Your task to perform on an android device: turn on priority inbox in the gmail app Image 0: 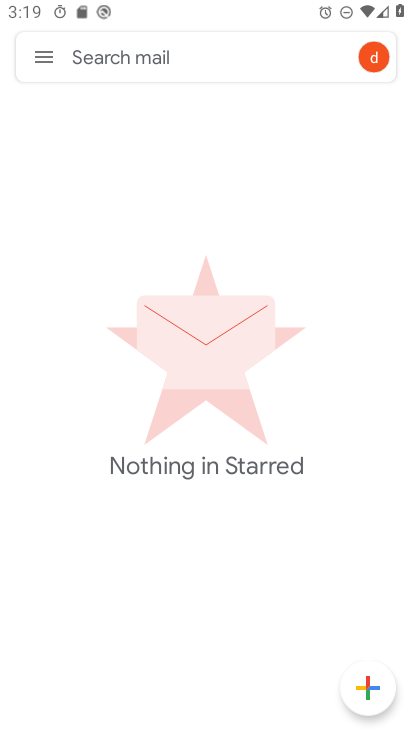
Step 0: press home button
Your task to perform on an android device: turn on priority inbox in the gmail app Image 1: 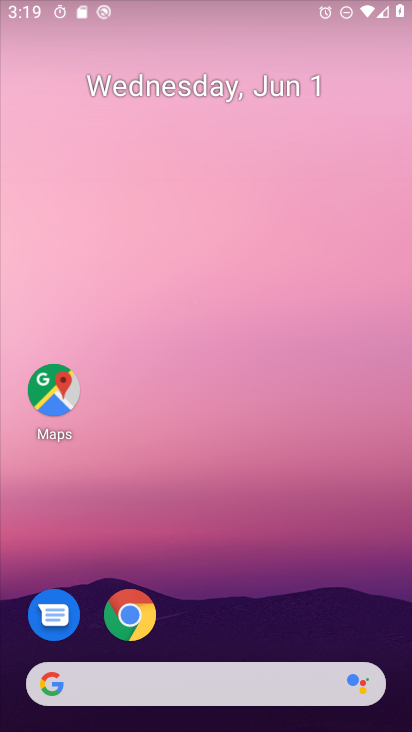
Step 1: drag from (209, 658) to (272, 78)
Your task to perform on an android device: turn on priority inbox in the gmail app Image 2: 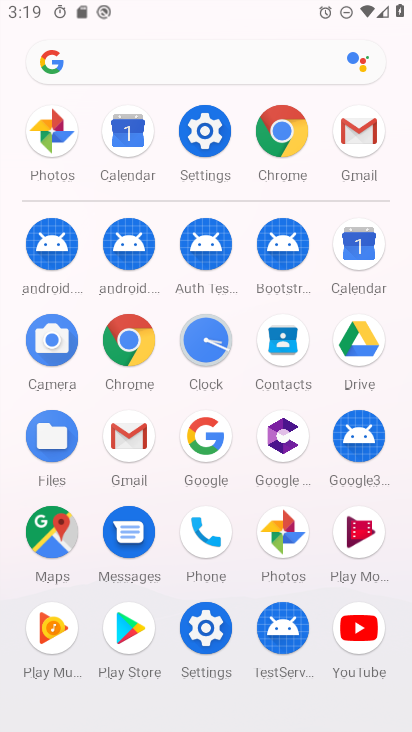
Step 2: click (142, 444)
Your task to perform on an android device: turn on priority inbox in the gmail app Image 3: 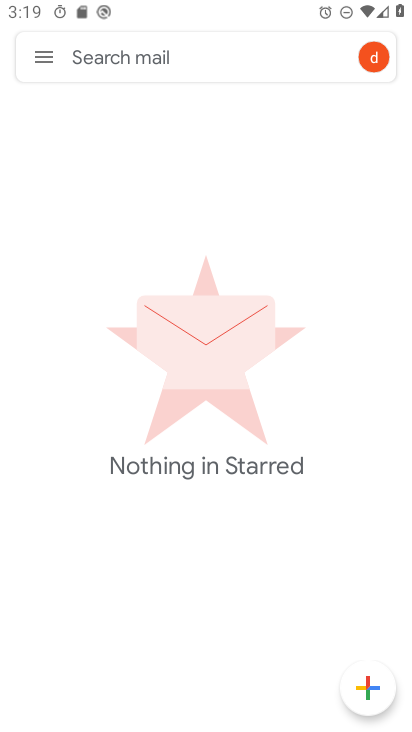
Step 3: click (33, 50)
Your task to perform on an android device: turn on priority inbox in the gmail app Image 4: 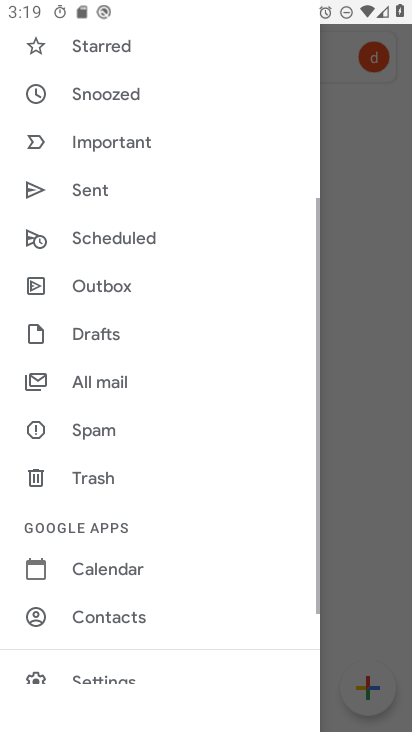
Step 4: drag from (139, 639) to (170, 173)
Your task to perform on an android device: turn on priority inbox in the gmail app Image 5: 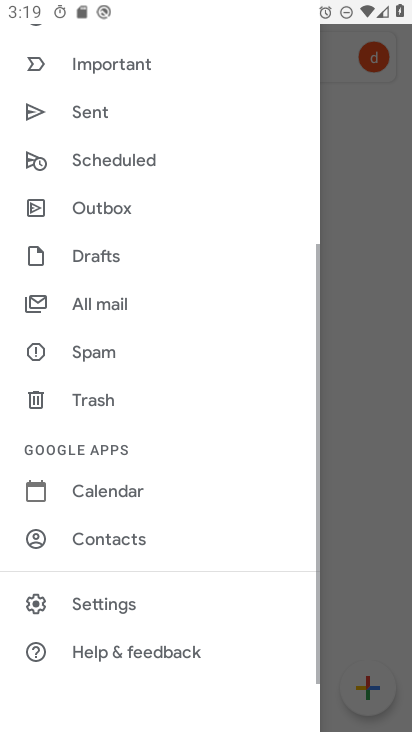
Step 5: click (131, 597)
Your task to perform on an android device: turn on priority inbox in the gmail app Image 6: 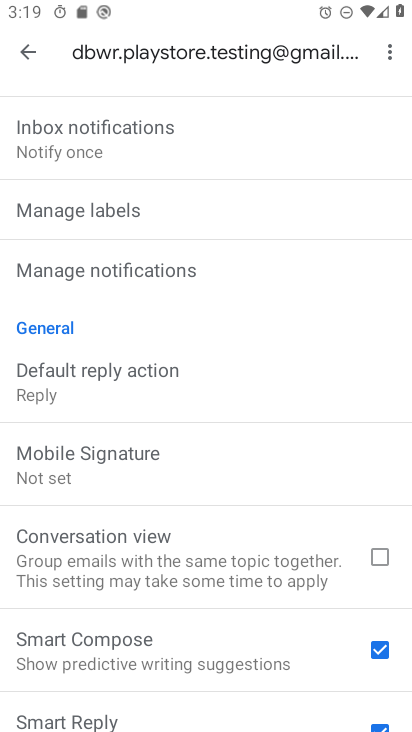
Step 6: drag from (249, 192) to (291, 725)
Your task to perform on an android device: turn on priority inbox in the gmail app Image 7: 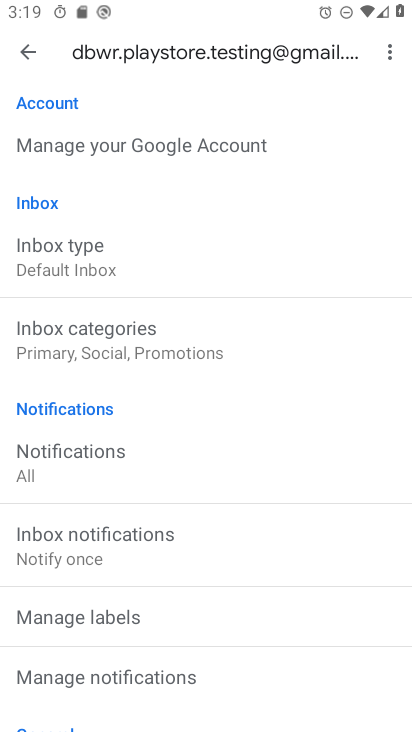
Step 7: click (125, 275)
Your task to perform on an android device: turn on priority inbox in the gmail app Image 8: 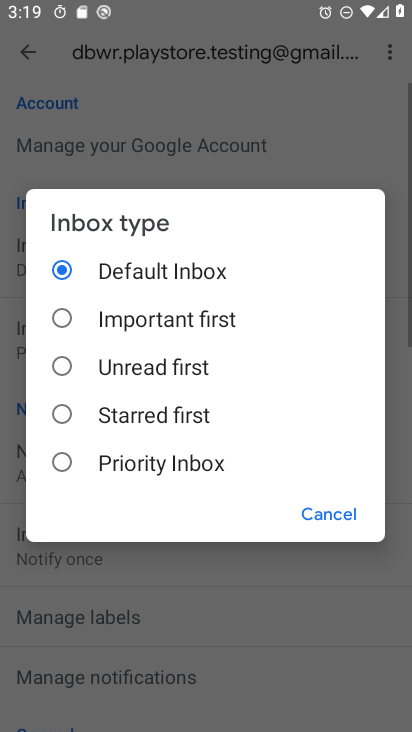
Step 8: click (185, 465)
Your task to perform on an android device: turn on priority inbox in the gmail app Image 9: 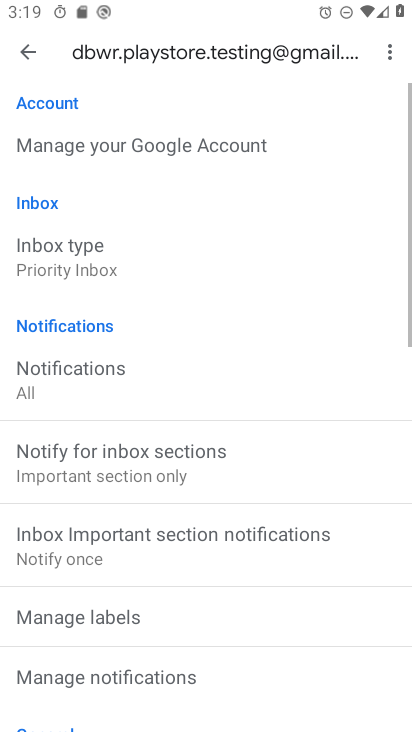
Step 9: task complete